Your task to perform on an android device: turn smart compose on in the gmail app Image 0: 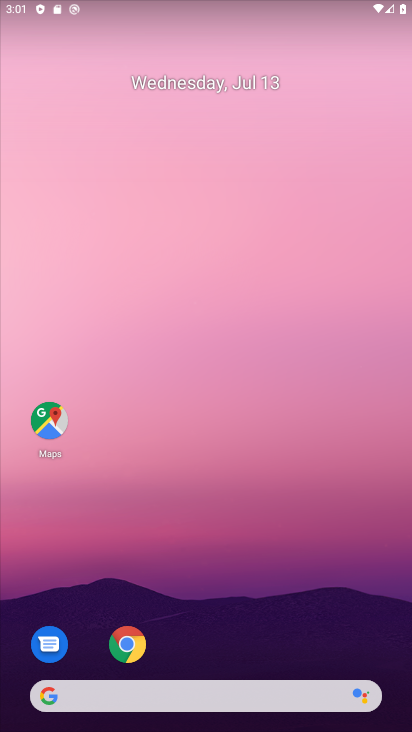
Step 0: drag from (234, 687) to (260, 67)
Your task to perform on an android device: turn smart compose on in the gmail app Image 1: 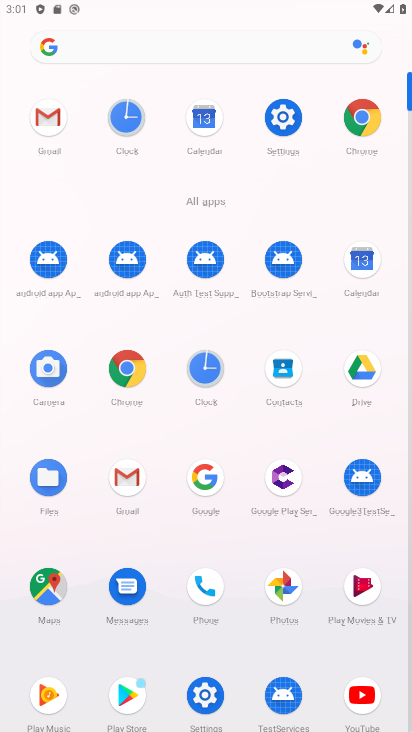
Step 1: click (127, 476)
Your task to perform on an android device: turn smart compose on in the gmail app Image 2: 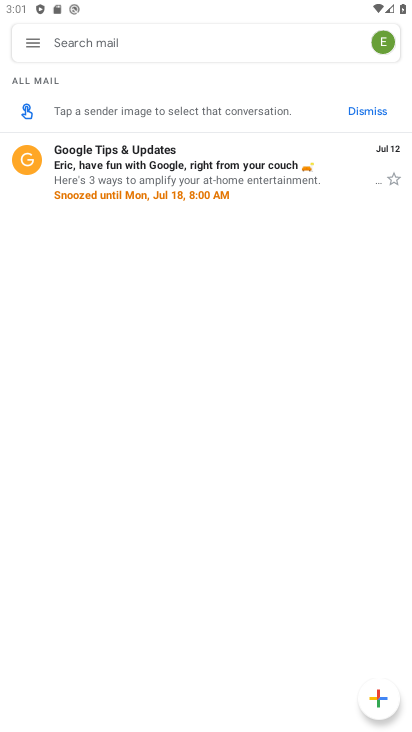
Step 2: click (34, 39)
Your task to perform on an android device: turn smart compose on in the gmail app Image 3: 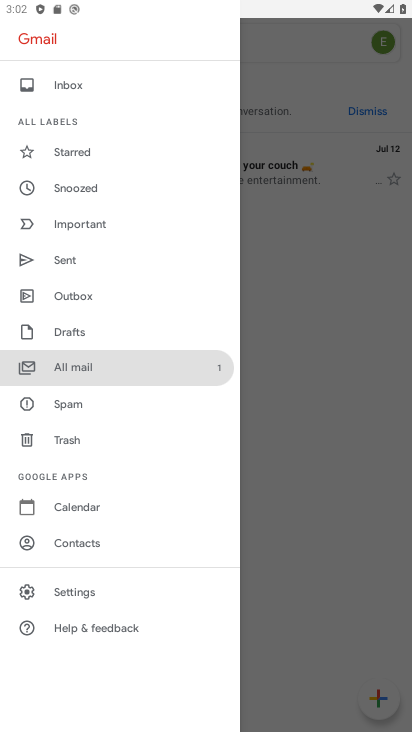
Step 3: click (97, 592)
Your task to perform on an android device: turn smart compose on in the gmail app Image 4: 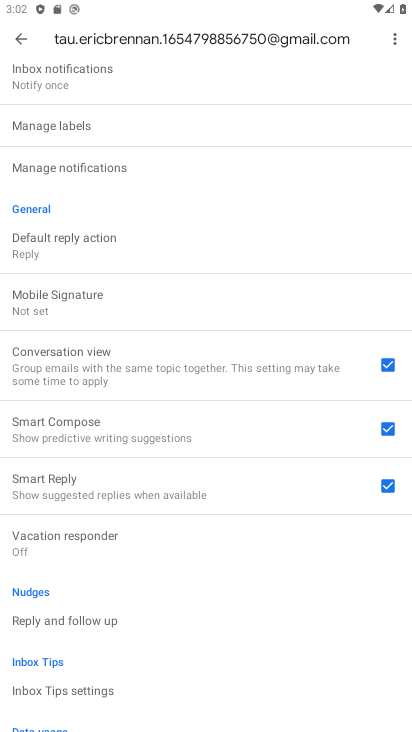
Step 4: task complete